Your task to perform on an android device: open wifi settings Image 0: 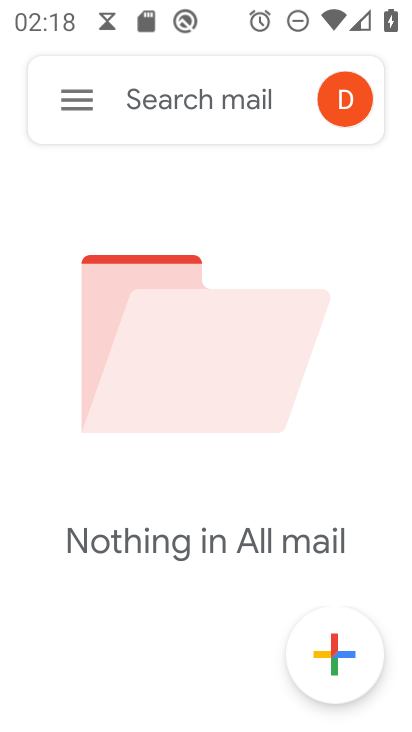
Step 0: press home button
Your task to perform on an android device: open wifi settings Image 1: 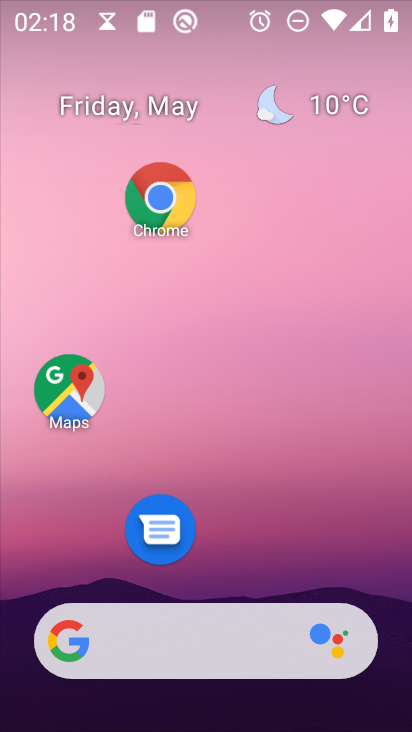
Step 1: drag from (200, 508) to (242, 124)
Your task to perform on an android device: open wifi settings Image 2: 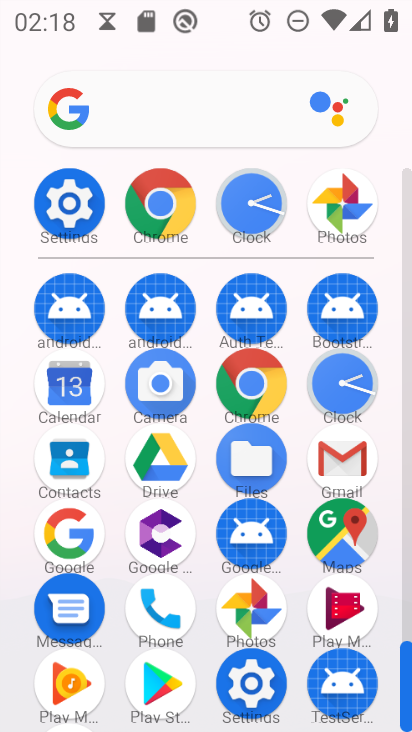
Step 2: click (62, 198)
Your task to perform on an android device: open wifi settings Image 3: 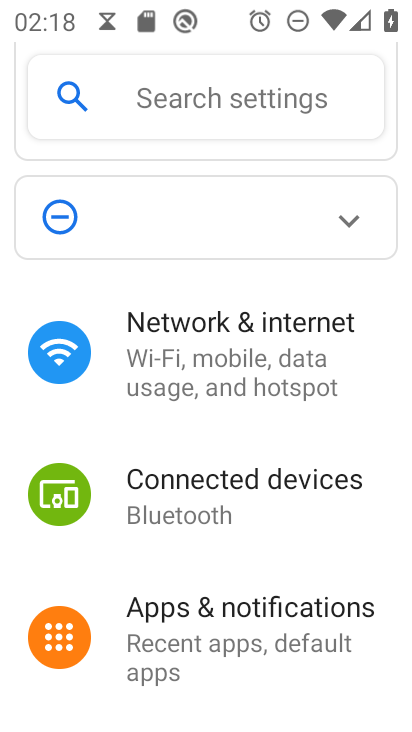
Step 3: click (205, 329)
Your task to perform on an android device: open wifi settings Image 4: 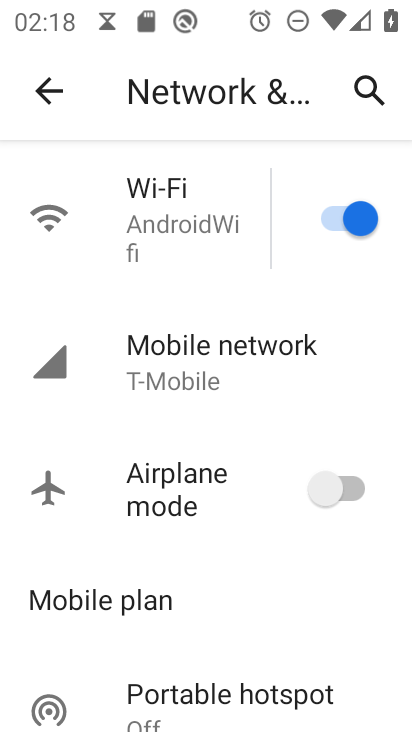
Step 4: click (236, 190)
Your task to perform on an android device: open wifi settings Image 5: 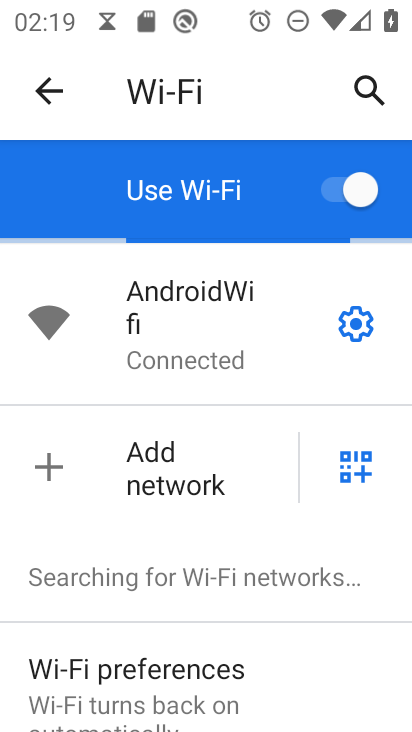
Step 5: task complete